Your task to perform on an android device: toggle notifications settings in the gmail app Image 0: 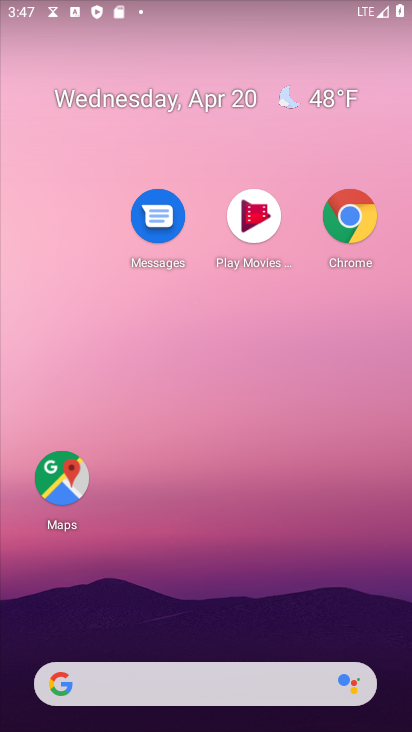
Step 0: drag from (274, 597) to (341, 94)
Your task to perform on an android device: toggle notifications settings in the gmail app Image 1: 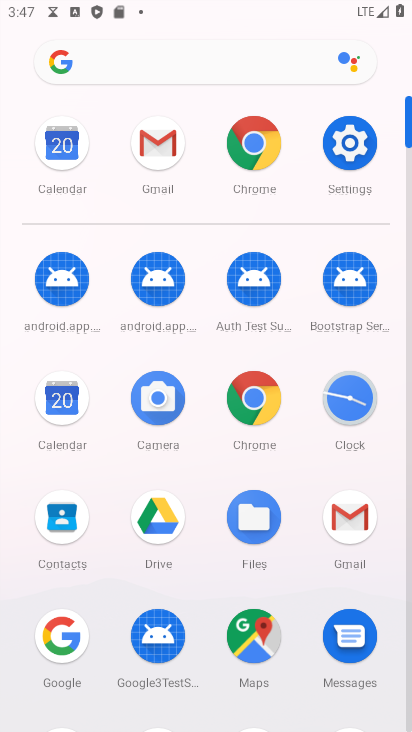
Step 1: click (350, 154)
Your task to perform on an android device: toggle notifications settings in the gmail app Image 2: 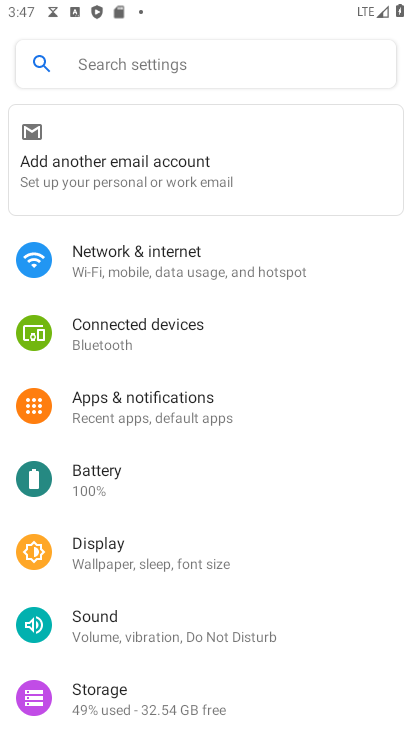
Step 2: press home button
Your task to perform on an android device: toggle notifications settings in the gmail app Image 3: 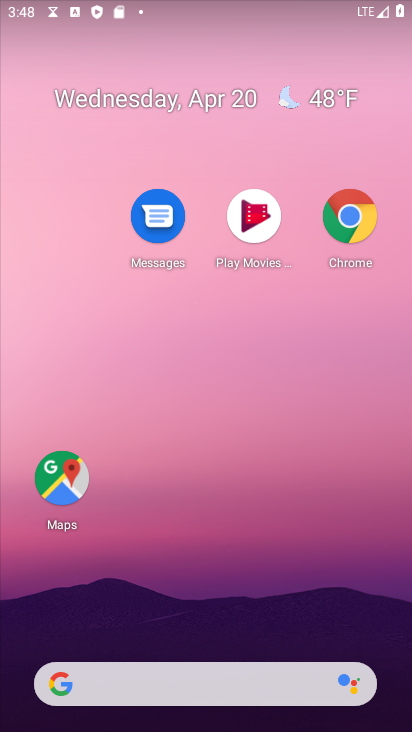
Step 3: drag from (293, 606) to (315, 37)
Your task to perform on an android device: toggle notifications settings in the gmail app Image 4: 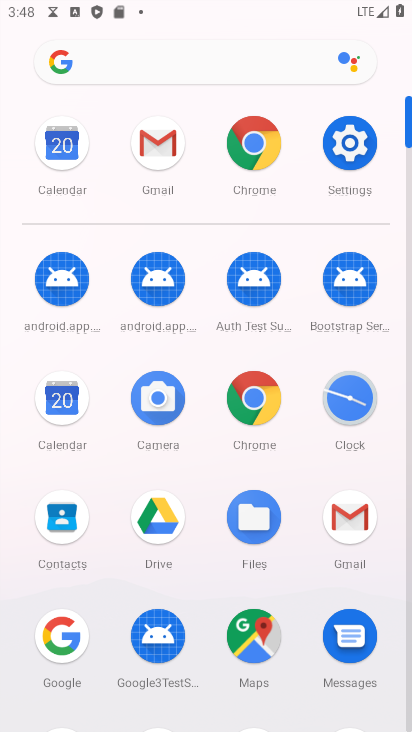
Step 4: click (351, 513)
Your task to perform on an android device: toggle notifications settings in the gmail app Image 5: 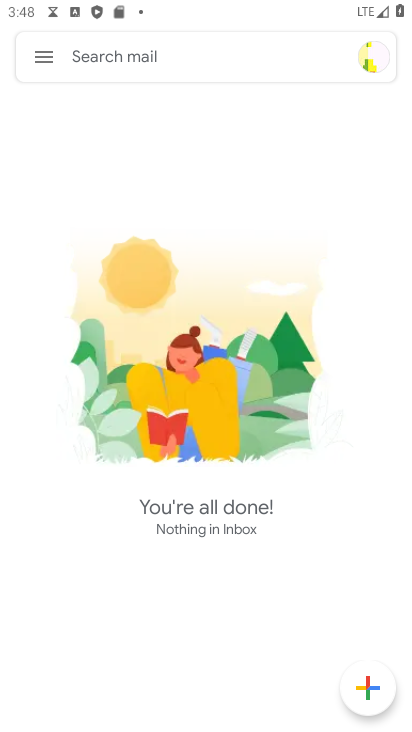
Step 5: click (48, 57)
Your task to perform on an android device: toggle notifications settings in the gmail app Image 6: 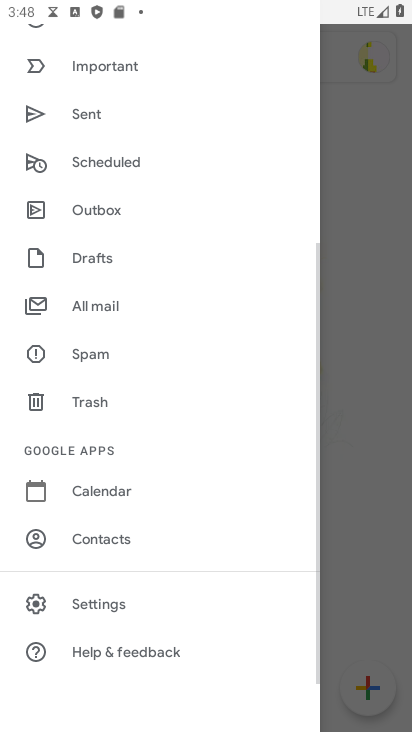
Step 6: click (134, 614)
Your task to perform on an android device: toggle notifications settings in the gmail app Image 7: 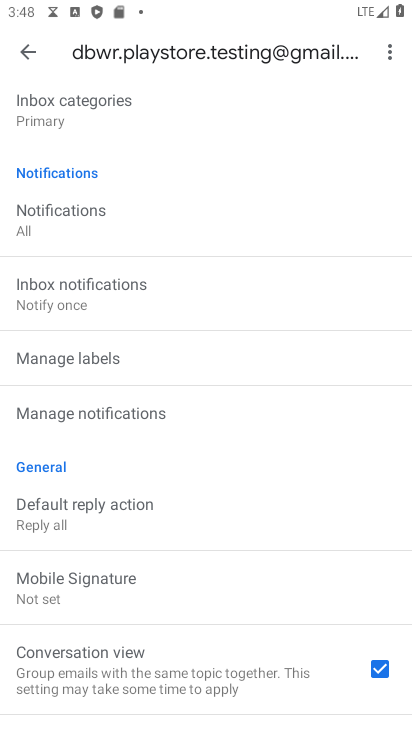
Step 7: click (127, 423)
Your task to perform on an android device: toggle notifications settings in the gmail app Image 8: 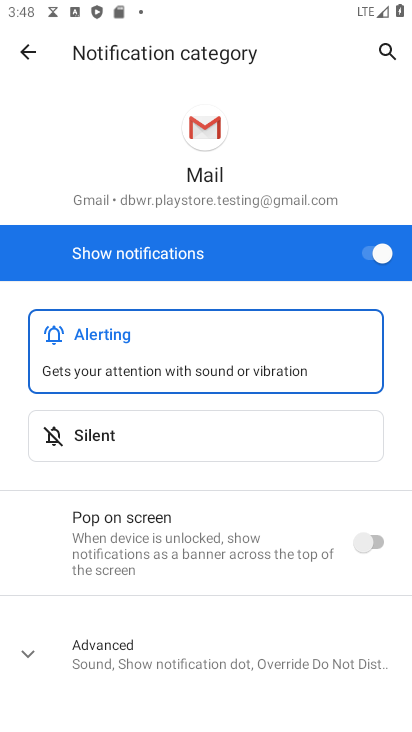
Step 8: click (372, 251)
Your task to perform on an android device: toggle notifications settings in the gmail app Image 9: 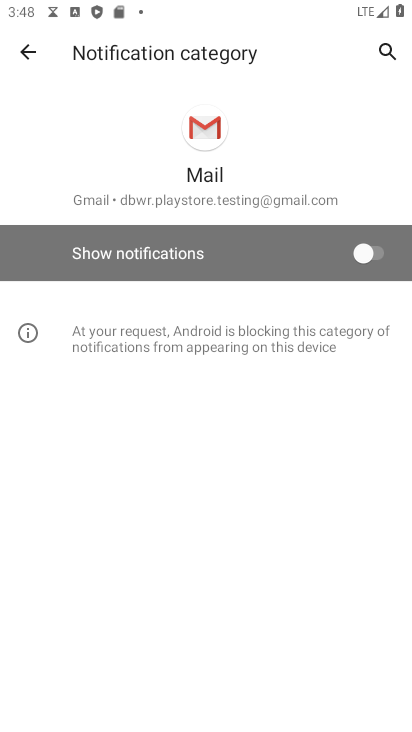
Step 9: task complete